Your task to perform on an android device: Open ESPN.com Image 0: 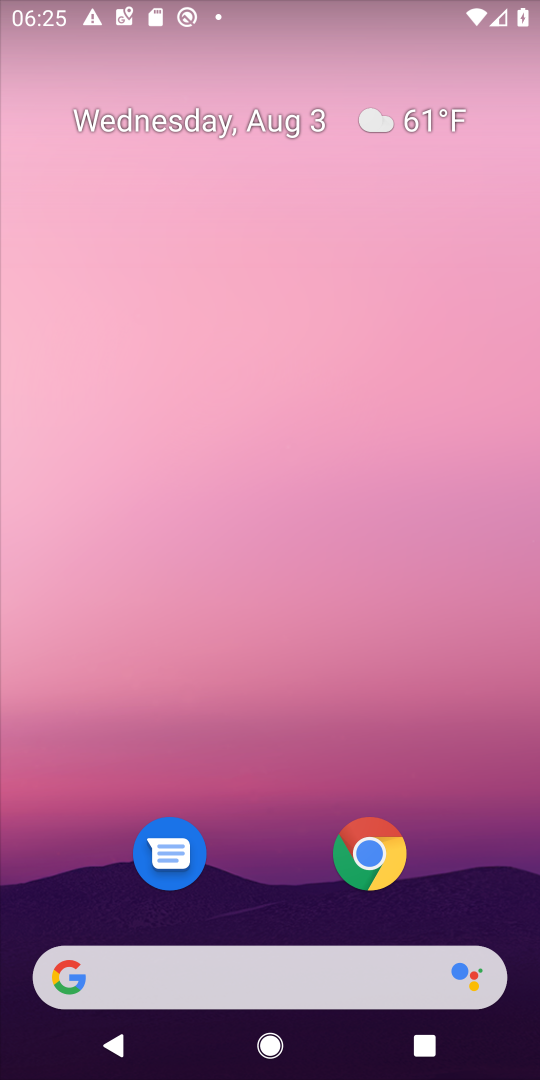
Step 0: click (374, 857)
Your task to perform on an android device: Open ESPN.com Image 1: 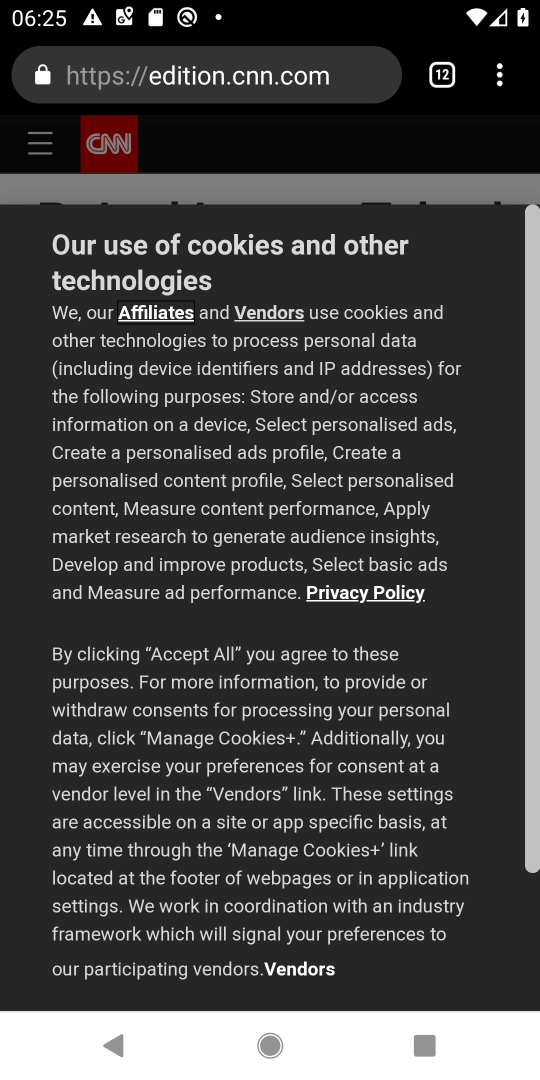
Step 1: click (503, 87)
Your task to perform on an android device: Open ESPN.com Image 2: 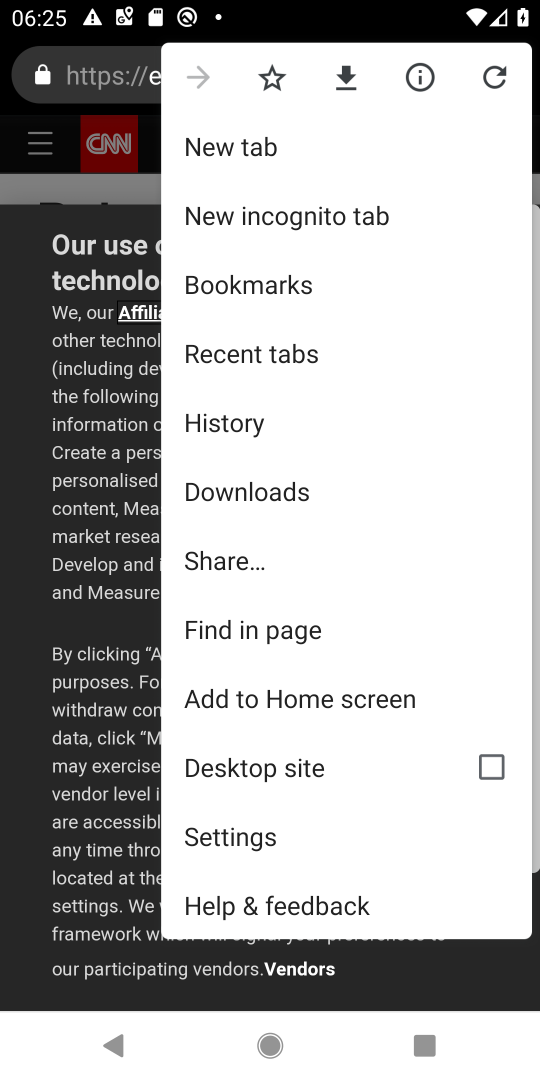
Step 2: click (258, 145)
Your task to perform on an android device: Open ESPN.com Image 3: 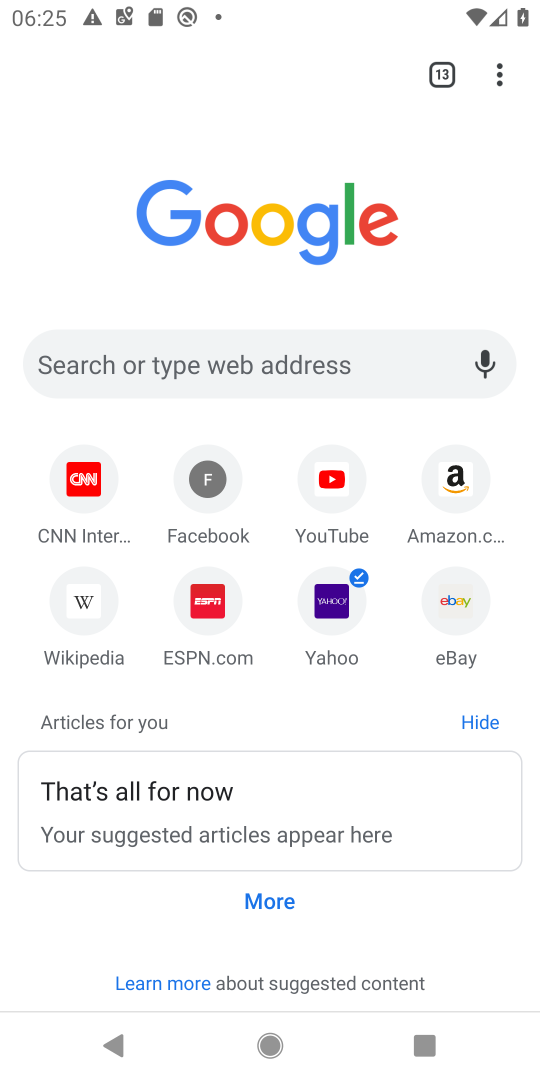
Step 3: click (221, 605)
Your task to perform on an android device: Open ESPN.com Image 4: 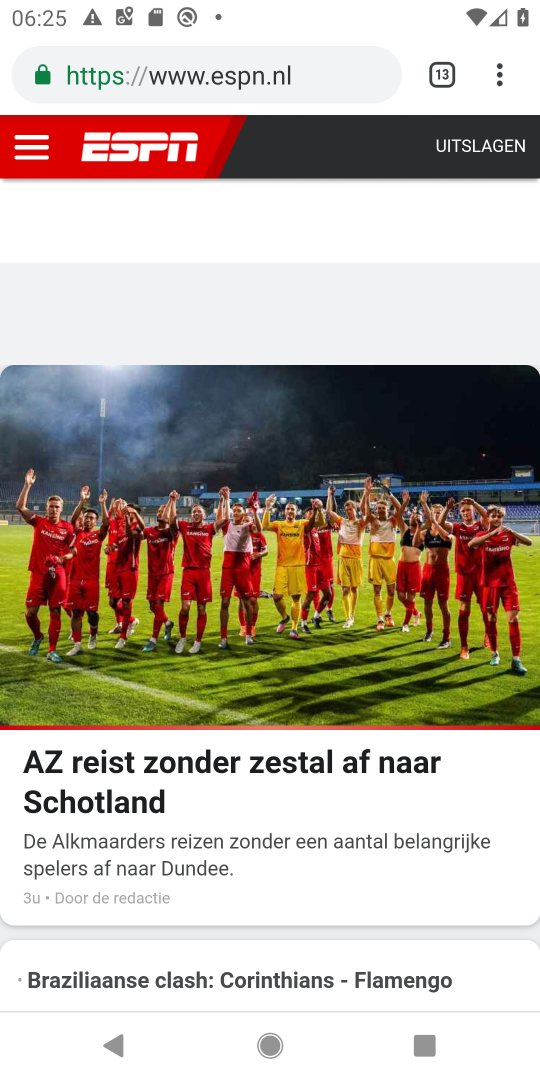
Step 4: task complete